Your task to perform on an android device: turn on data saver in the chrome app Image 0: 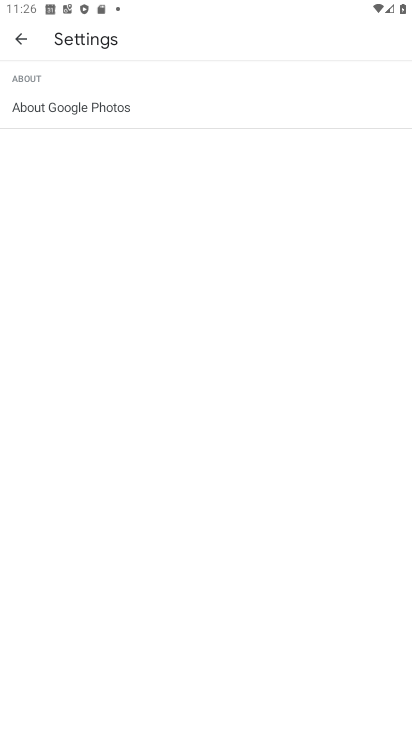
Step 0: press home button
Your task to perform on an android device: turn on data saver in the chrome app Image 1: 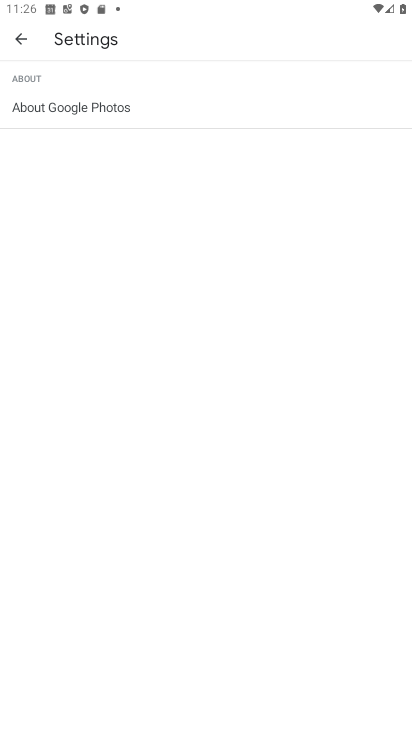
Step 1: press home button
Your task to perform on an android device: turn on data saver in the chrome app Image 2: 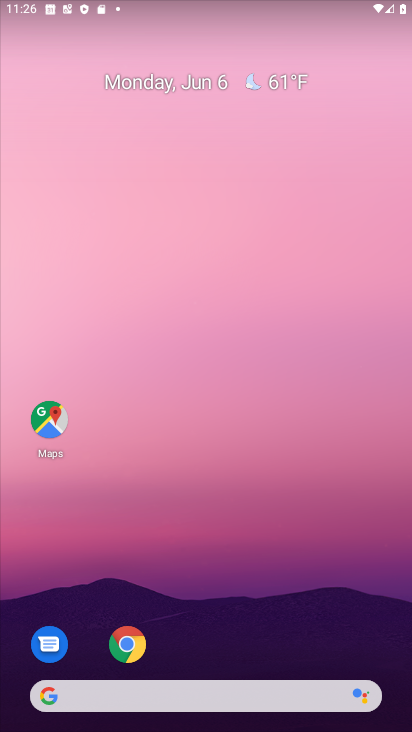
Step 2: drag from (163, 704) to (207, 234)
Your task to perform on an android device: turn on data saver in the chrome app Image 3: 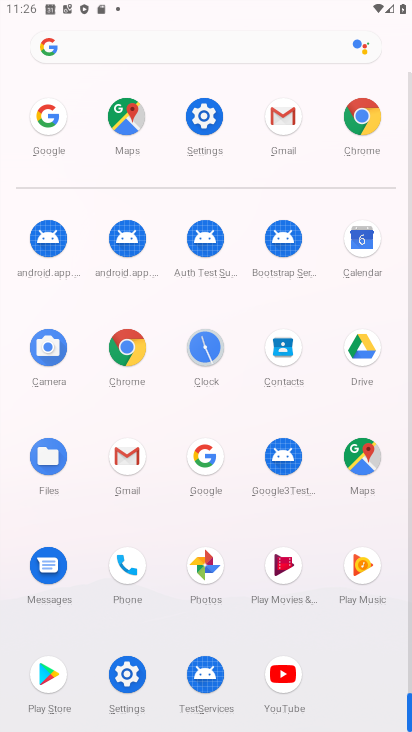
Step 3: click (147, 366)
Your task to perform on an android device: turn on data saver in the chrome app Image 4: 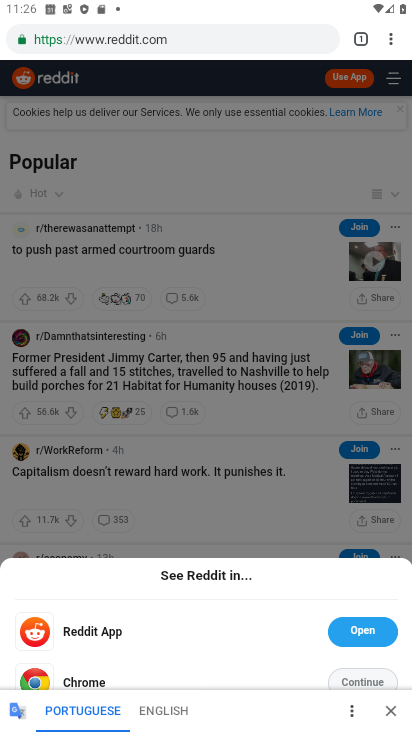
Step 4: click (394, 46)
Your task to perform on an android device: turn on data saver in the chrome app Image 5: 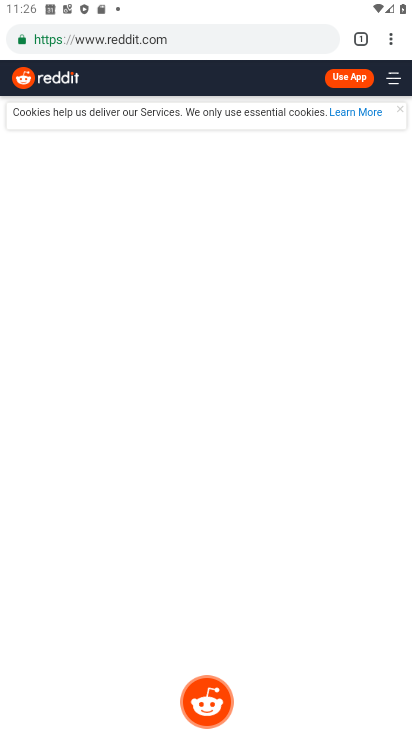
Step 5: click (398, 46)
Your task to perform on an android device: turn on data saver in the chrome app Image 6: 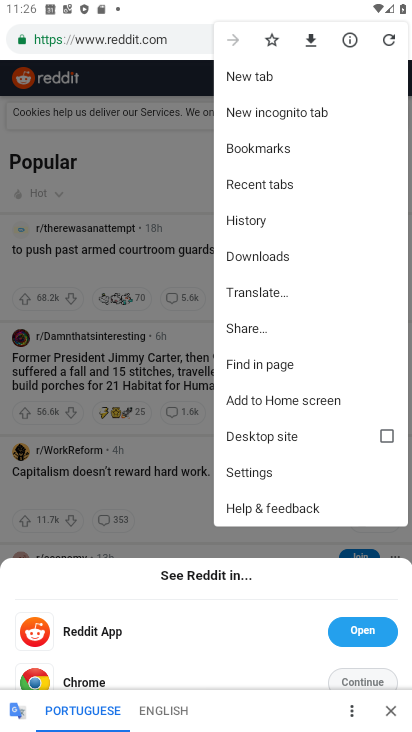
Step 6: click (246, 472)
Your task to perform on an android device: turn on data saver in the chrome app Image 7: 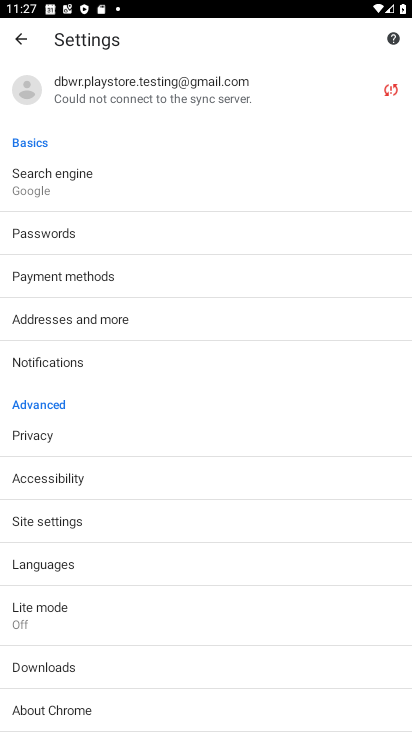
Step 7: click (99, 629)
Your task to perform on an android device: turn on data saver in the chrome app Image 8: 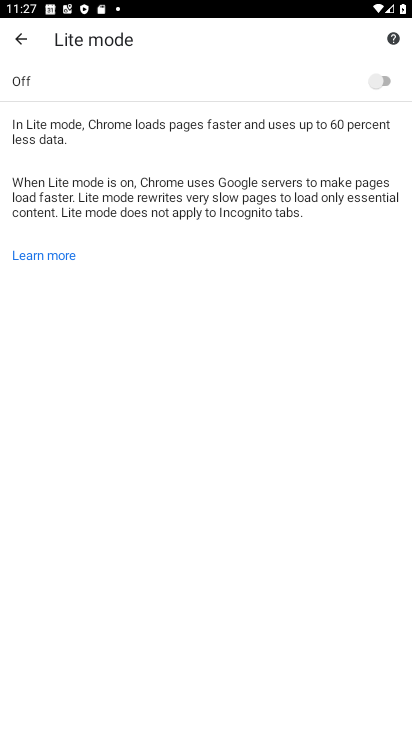
Step 8: click (387, 83)
Your task to perform on an android device: turn on data saver in the chrome app Image 9: 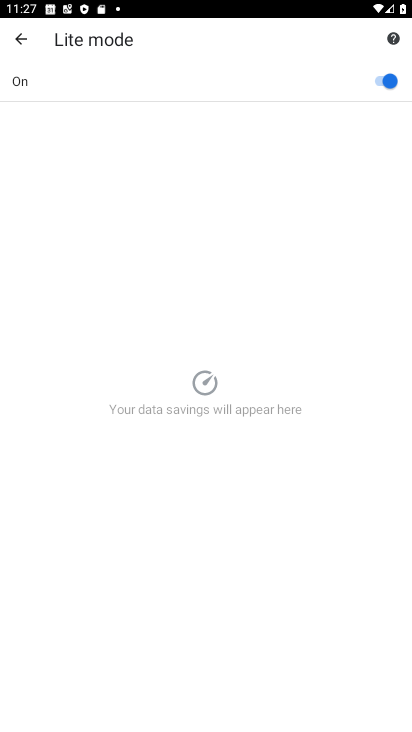
Step 9: task complete